Your task to perform on an android device: Do I have any events today? Image 0: 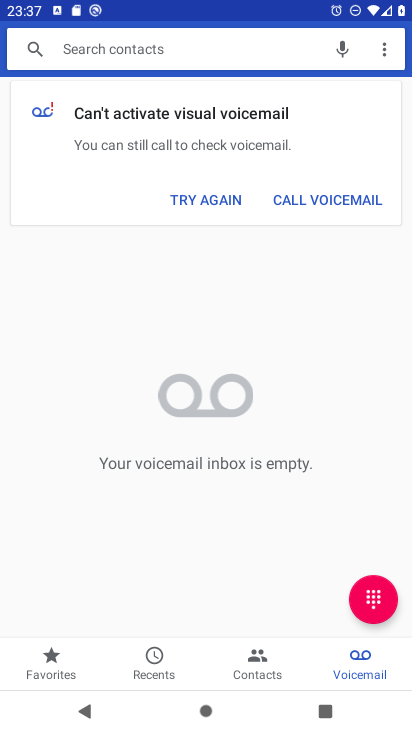
Step 0: press home button
Your task to perform on an android device: Do I have any events today? Image 1: 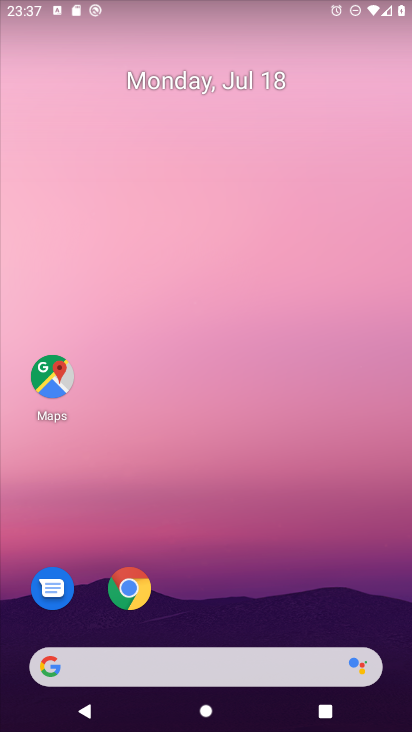
Step 1: drag from (373, 615) to (327, 96)
Your task to perform on an android device: Do I have any events today? Image 2: 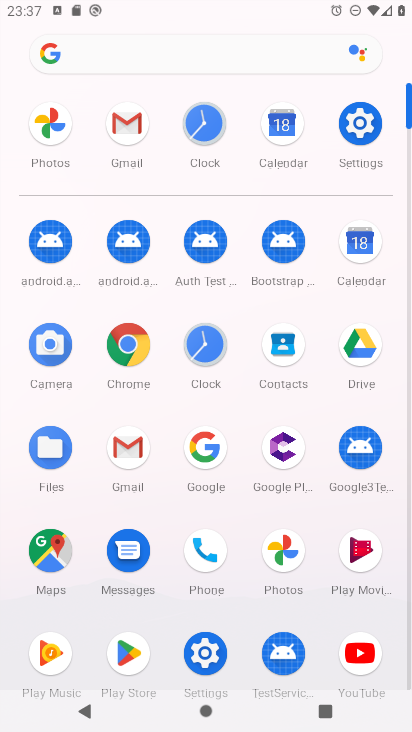
Step 2: click (358, 241)
Your task to perform on an android device: Do I have any events today? Image 3: 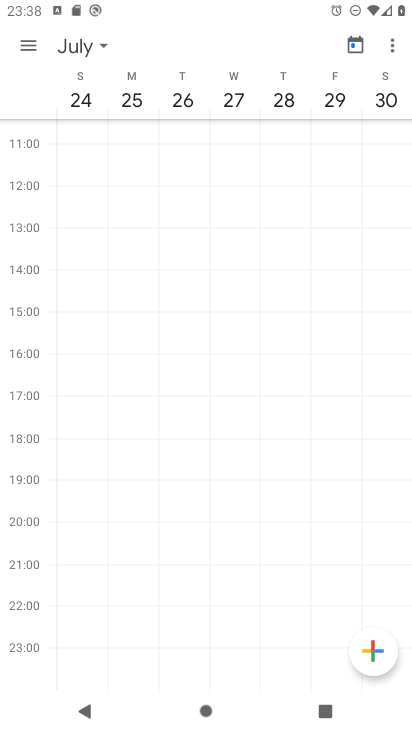
Step 3: click (29, 47)
Your task to perform on an android device: Do I have any events today? Image 4: 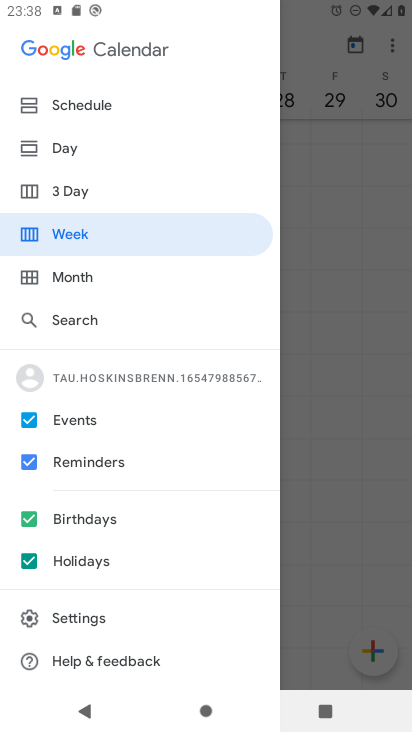
Step 4: click (62, 150)
Your task to perform on an android device: Do I have any events today? Image 5: 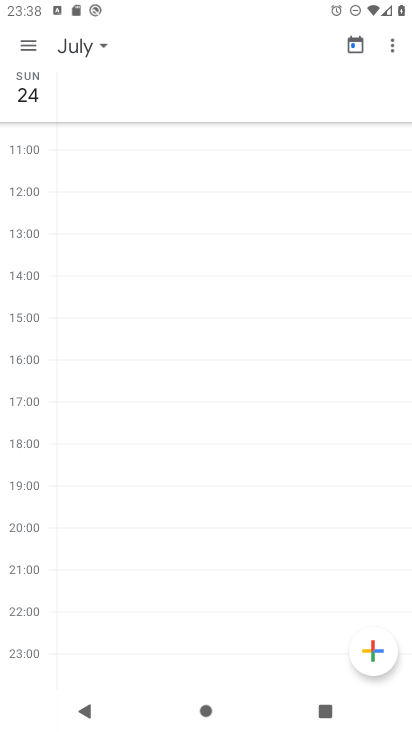
Step 5: click (101, 45)
Your task to perform on an android device: Do I have any events today? Image 6: 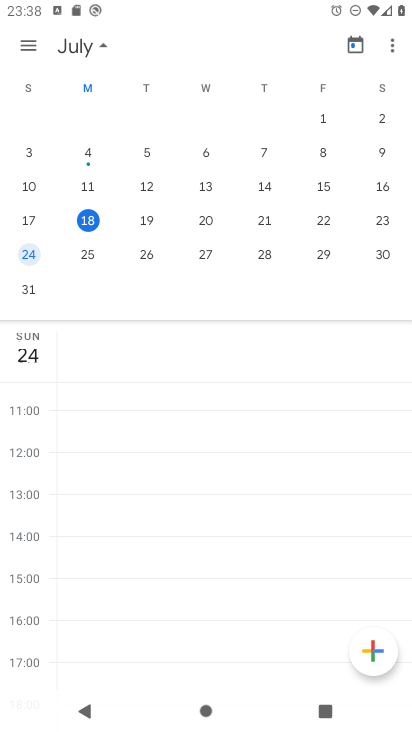
Step 6: click (86, 220)
Your task to perform on an android device: Do I have any events today? Image 7: 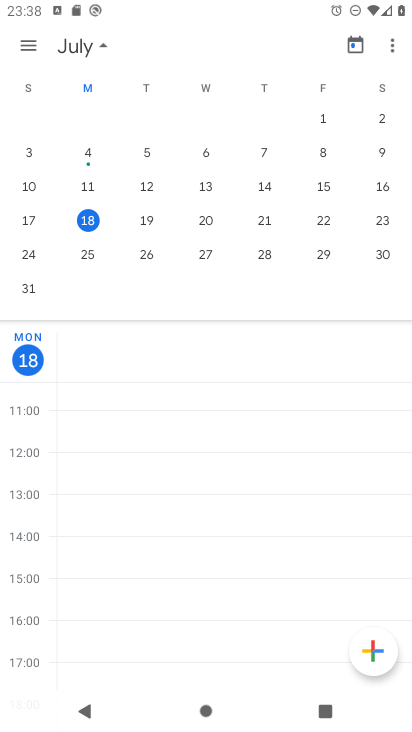
Step 7: task complete